Your task to perform on an android device: Open Google Chrome and click the shortcut for Amazon.com Image 0: 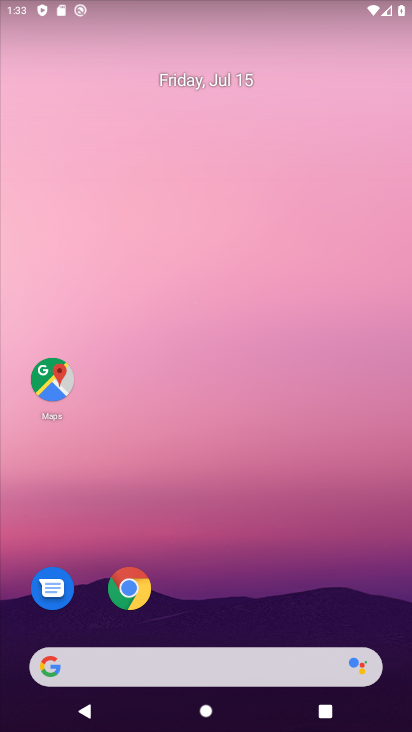
Step 0: click (129, 590)
Your task to perform on an android device: Open Google Chrome and click the shortcut for Amazon.com Image 1: 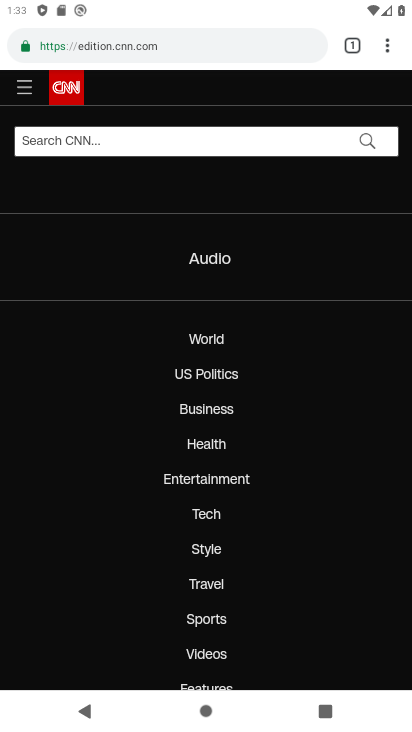
Step 1: click (289, 48)
Your task to perform on an android device: Open Google Chrome and click the shortcut for Amazon.com Image 2: 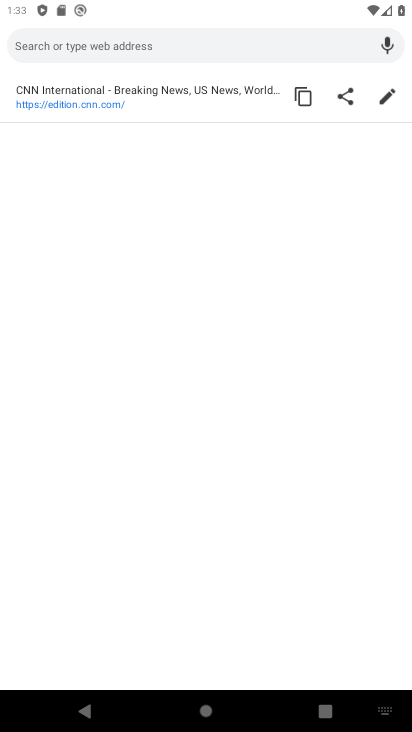
Step 2: type "Amazon"
Your task to perform on an android device: Open Google Chrome and click the shortcut for Amazon.com Image 3: 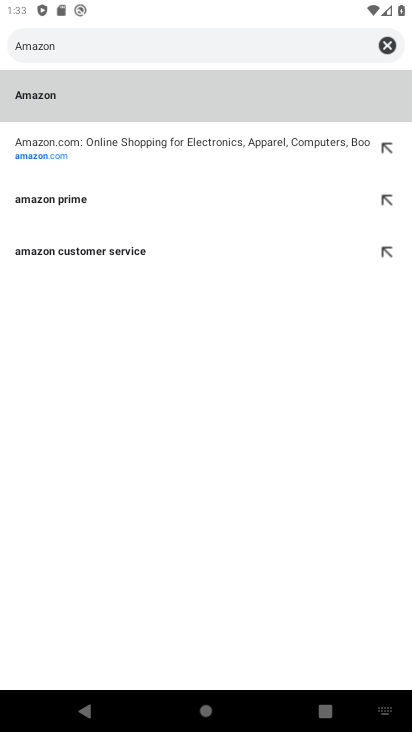
Step 3: click (54, 101)
Your task to perform on an android device: Open Google Chrome and click the shortcut for Amazon.com Image 4: 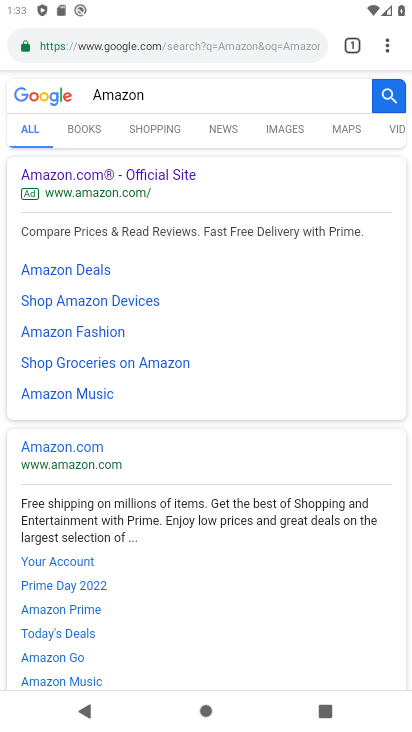
Step 4: click (80, 454)
Your task to perform on an android device: Open Google Chrome and click the shortcut for Amazon.com Image 5: 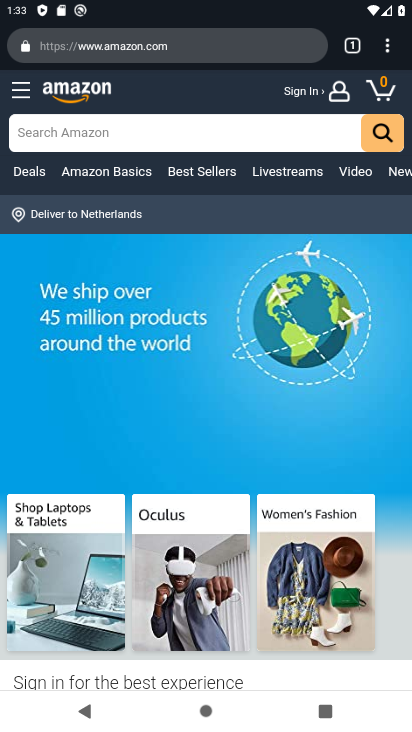
Step 5: click (389, 44)
Your task to perform on an android device: Open Google Chrome and click the shortcut for Amazon.com Image 6: 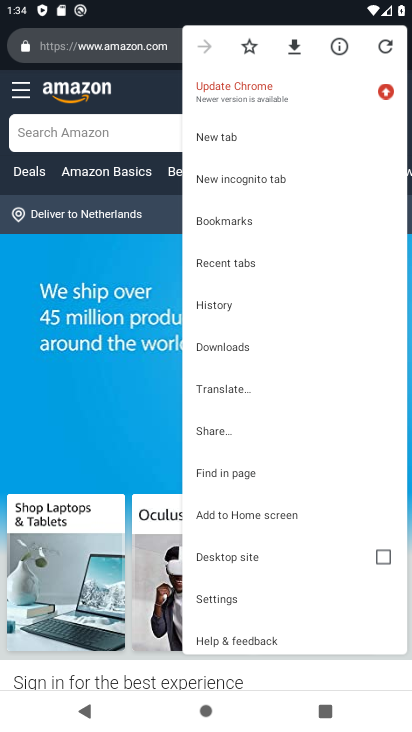
Step 6: click (254, 516)
Your task to perform on an android device: Open Google Chrome and click the shortcut for Amazon.com Image 7: 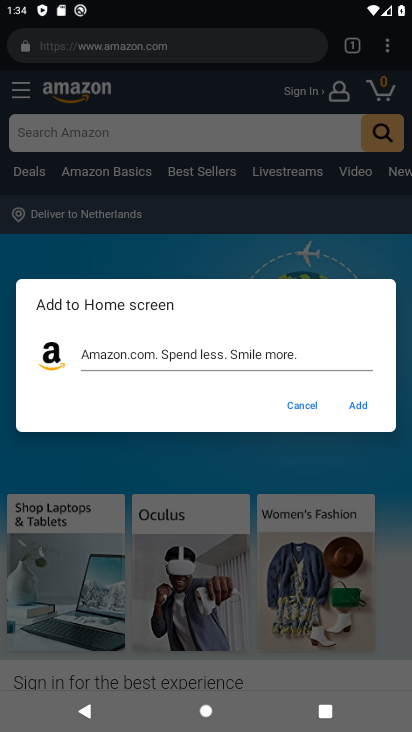
Step 7: click (356, 406)
Your task to perform on an android device: Open Google Chrome and click the shortcut for Amazon.com Image 8: 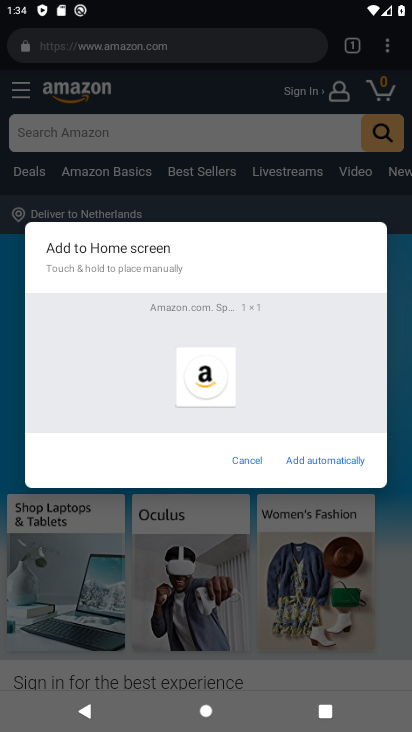
Step 8: click (341, 462)
Your task to perform on an android device: Open Google Chrome and click the shortcut for Amazon.com Image 9: 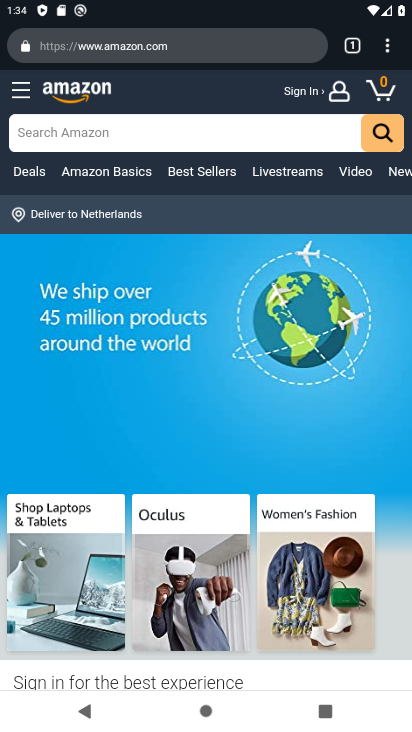
Step 9: task complete